Your task to perform on an android device: turn on wifi Image 0: 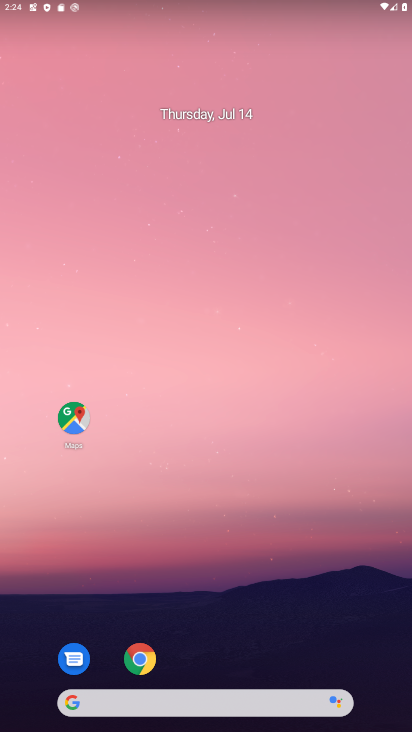
Step 0: press home button
Your task to perform on an android device: turn on wifi Image 1: 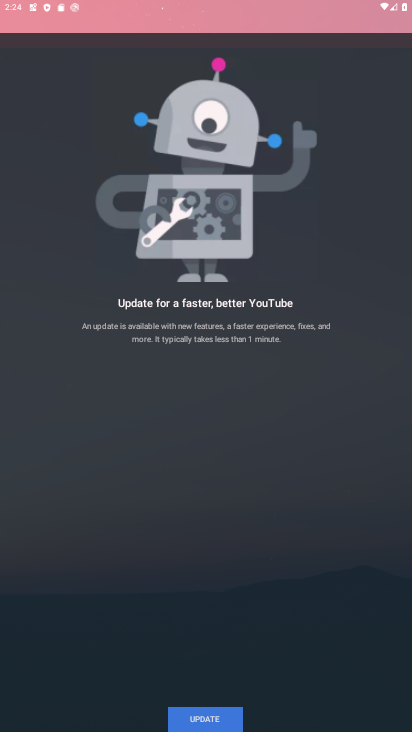
Step 1: task complete